Your task to perform on an android device: open the mobile data screen to see how much data has been used Image 0: 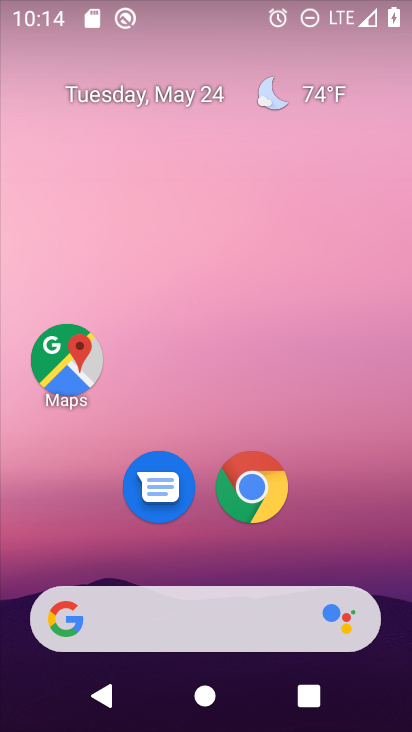
Step 0: drag from (388, 579) to (393, 1)
Your task to perform on an android device: open the mobile data screen to see how much data has been used Image 1: 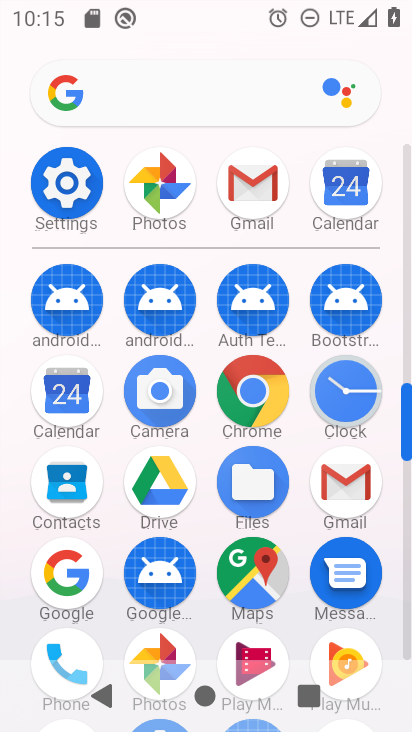
Step 1: click (67, 184)
Your task to perform on an android device: open the mobile data screen to see how much data has been used Image 2: 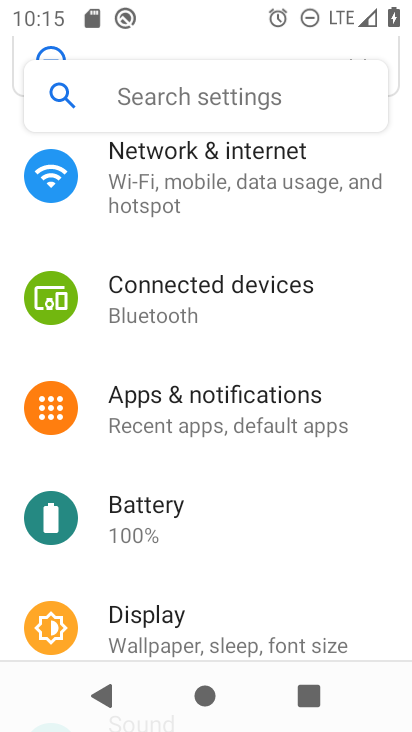
Step 2: click (210, 174)
Your task to perform on an android device: open the mobile data screen to see how much data has been used Image 3: 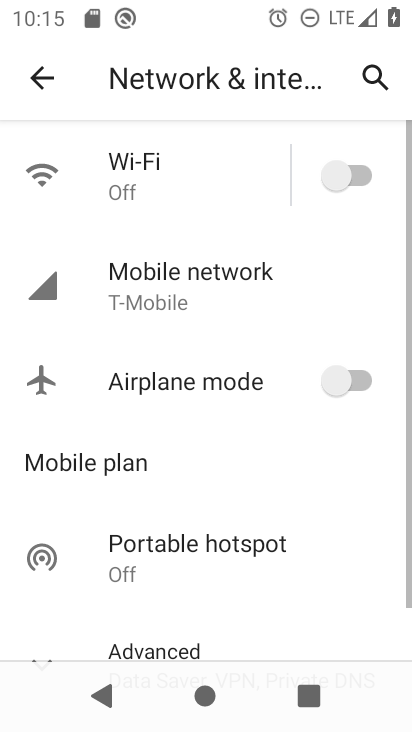
Step 3: click (155, 294)
Your task to perform on an android device: open the mobile data screen to see how much data has been used Image 4: 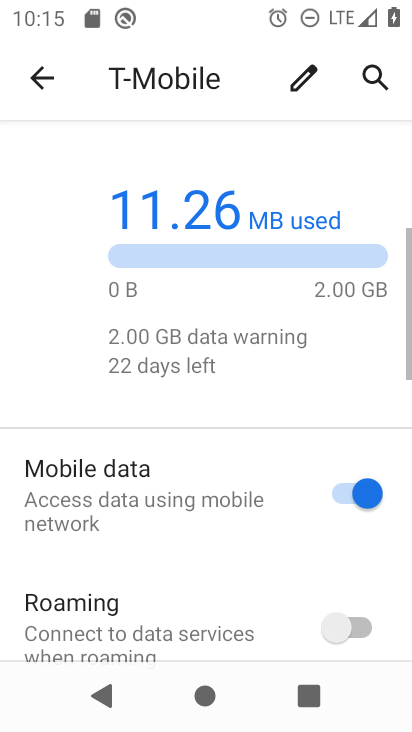
Step 4: drag from (238, 569) to (195, 137)
Your task to perform on an android device: open the mobile data screen to see how much data has been used Image 5: 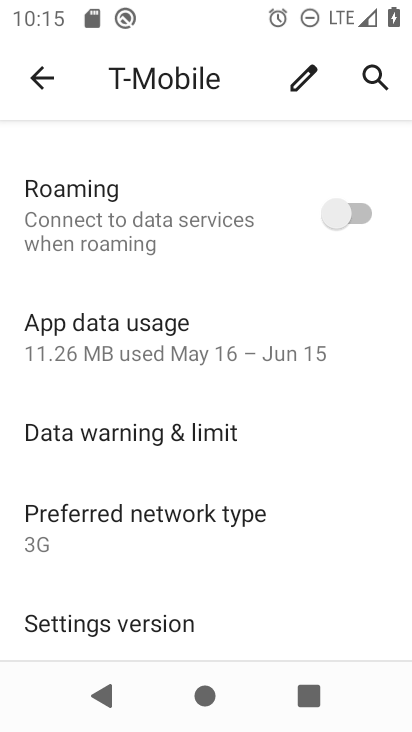
Step 5: click (132, 357)
Your task to perform on an android device: open the mobile data screen to see how much data has been used Image 6: 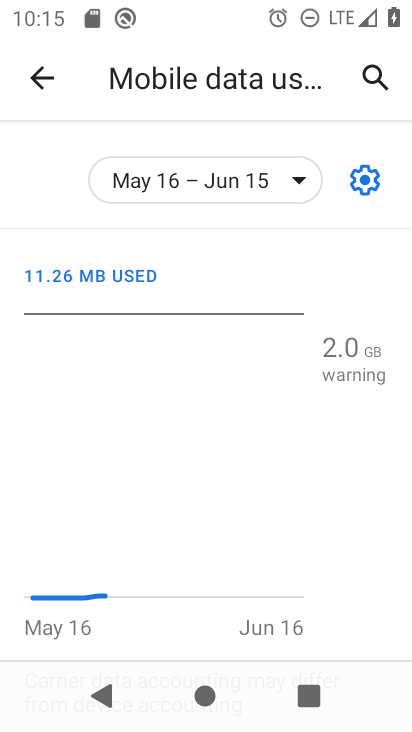
Step 6: task complete